Your task to perform on an android device: Show me recent news Image 0: 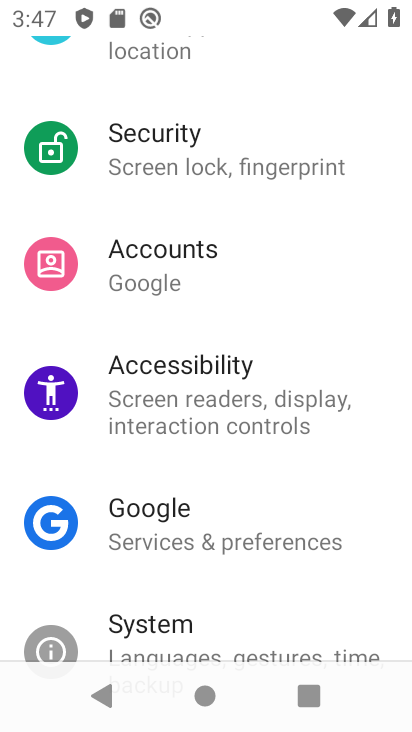
Step 0: press home button
Your task to perform on an android device: Show me recent news Image 1: 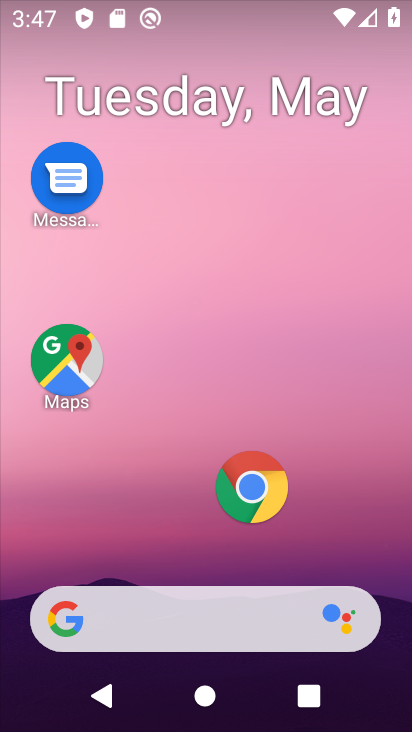
Step 1: drag from (182, 469) to (195, 10)
Your task to perform on an android device: Show me recent news Image 2: 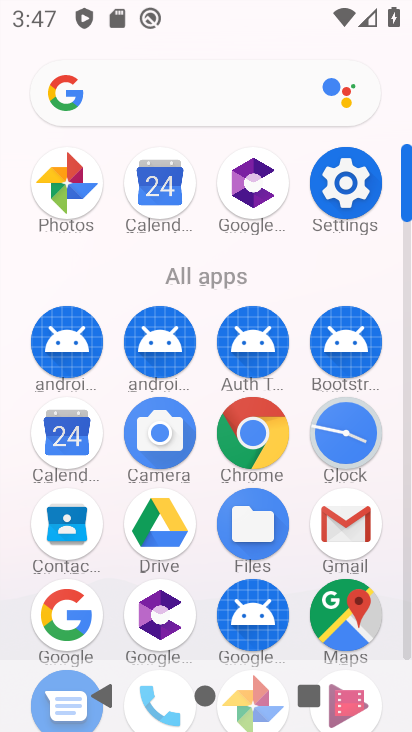
Step 2: click (66, 624)
Your task to perform on an android device: Show me recent news Image 3: 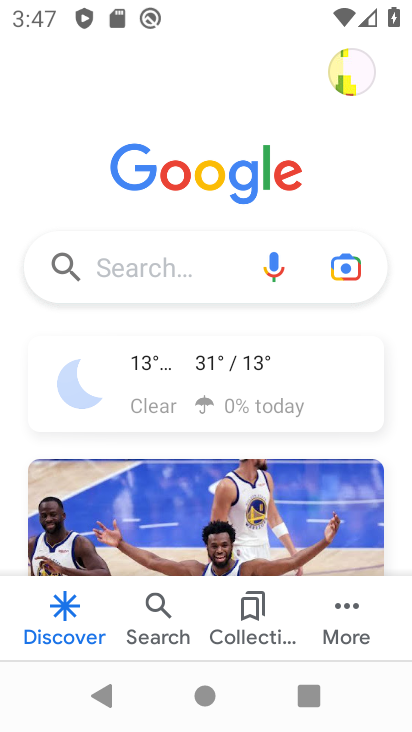
Step 3: click (134, 269)
Your task to perform on an android device: Show me recent news Image 4: 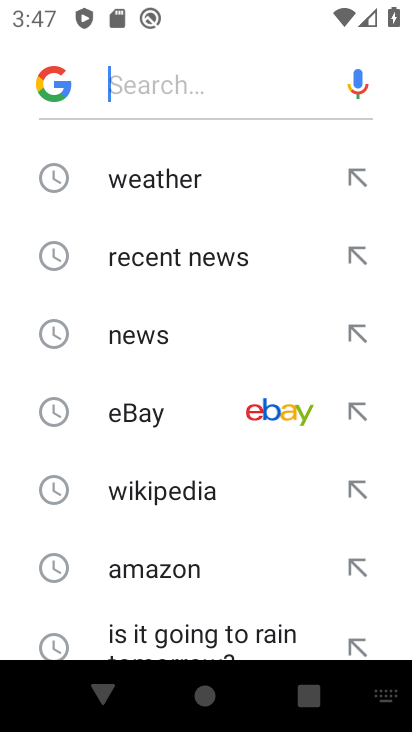
Step 4: click (148, 262)
Your task to perform on an android device: Show me recent news Image 5: 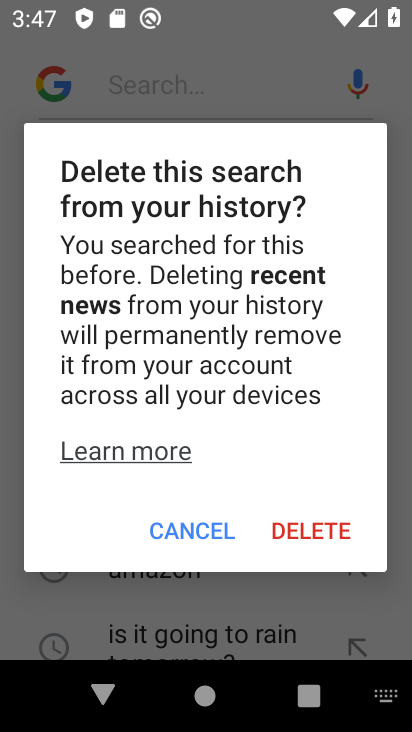
Step 5: click (202, 542)
Your task to perform on an android device: Show me recent news Image 6: 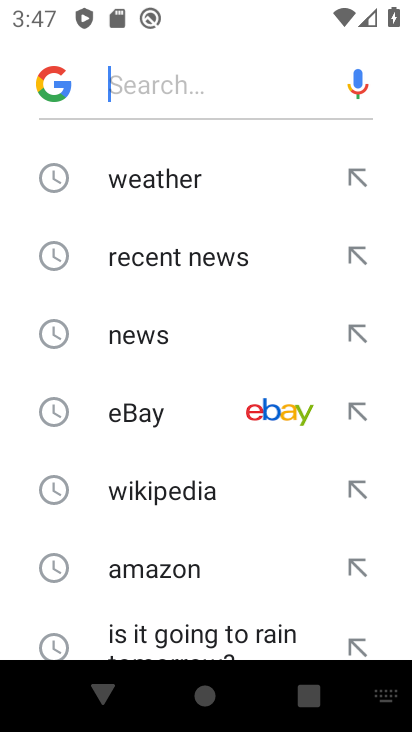
Step 6: click (157, 247)
Your task to perform on an android device: Show me recent news Image 7: 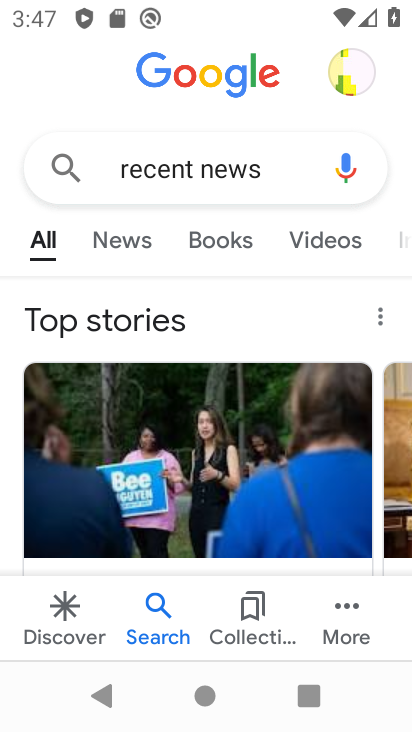
Step 7: task complete